Your task to perform on an android device: Check the news Image 0: 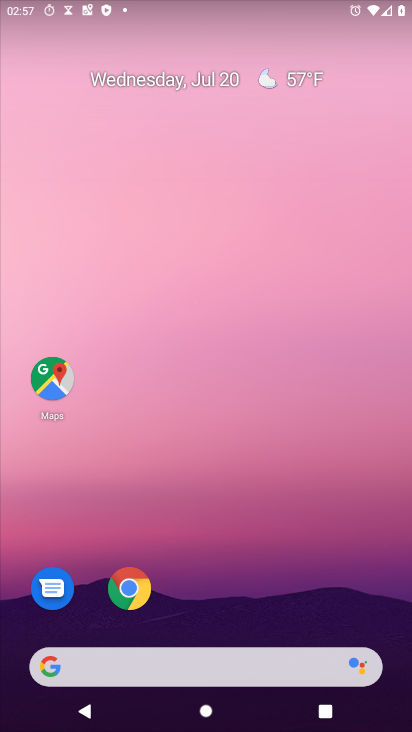
Step 0: drag from (332, 640) to (353, 39)
Your task to perform on an android device: Check the news Image 1: 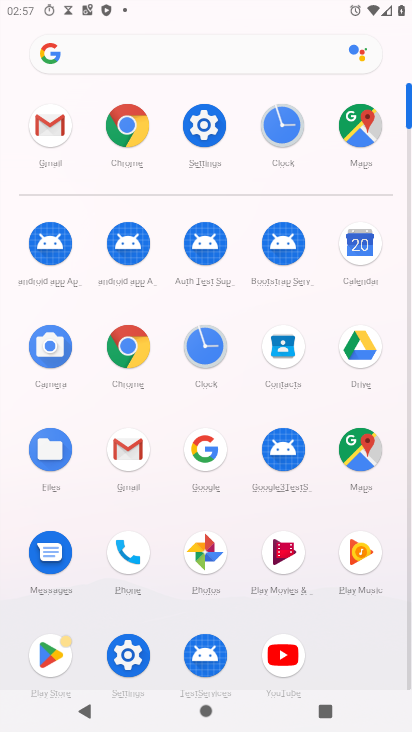
Step 1: click (119, 341)
Your task to perform on an android device: Check the news Image 2: 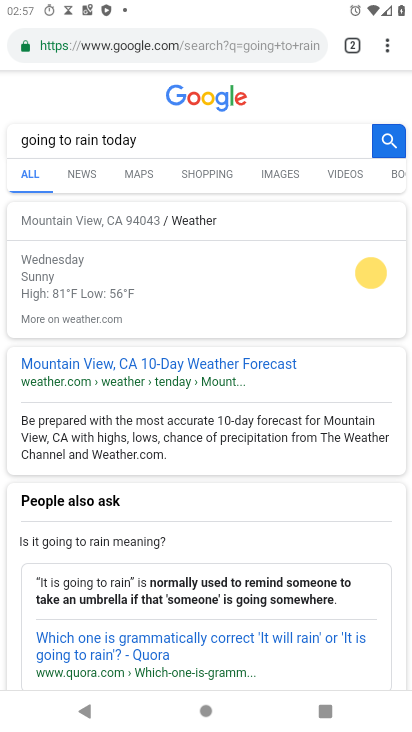
Step 2: click (286, 44)
Your task to perform on an android device: Check the news Image 3: 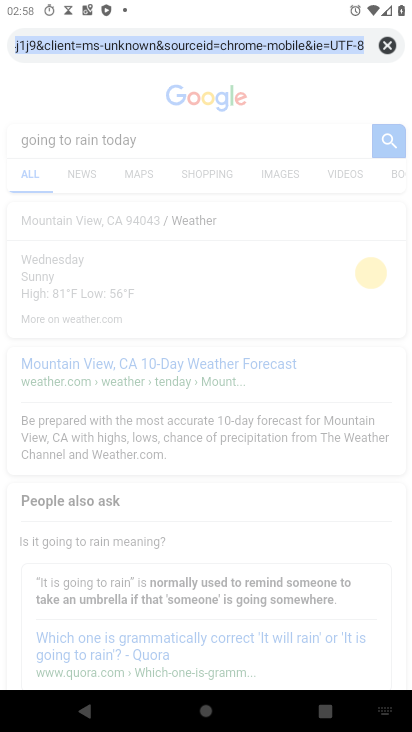
Step 3: type "check the news"
Your task to perform on an android device: Check the news Image 4: 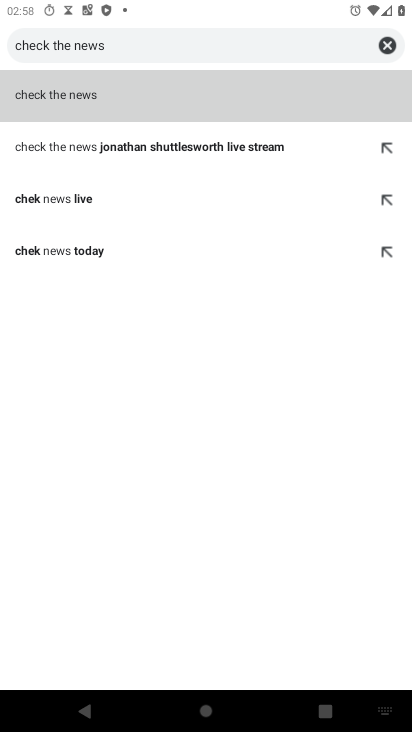
Step 4: click (110, 78)
Your task to perform on an android device: Check the news Image 5: 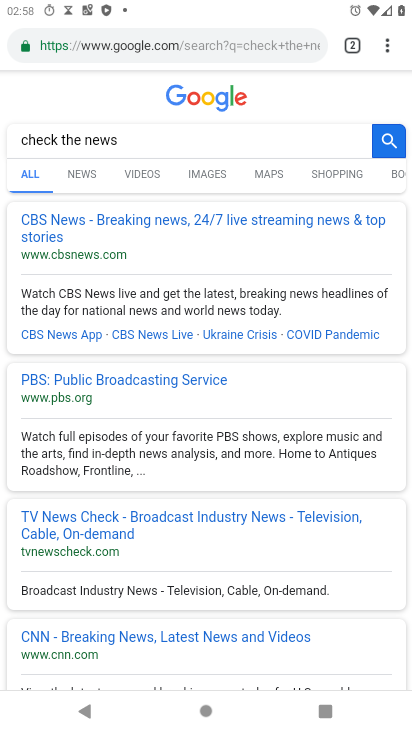
Step 5: task complete